Your task to perform on an android device: Show me the alarms in the clock app Image 0: 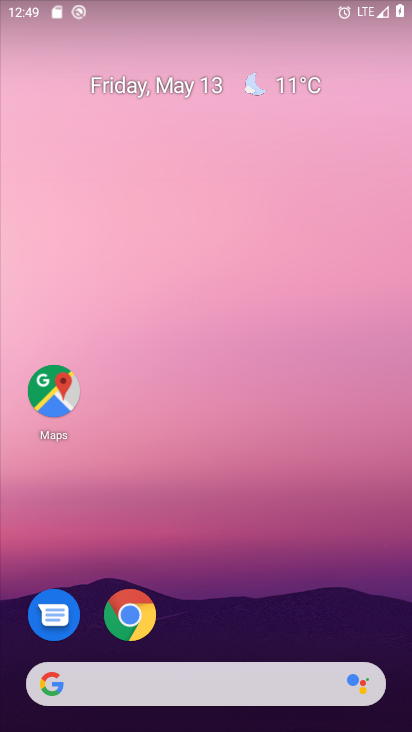
Step 0: drag from (285, 601) to (308, 57)
Your task to perform on an android device: Show me the alarms in the clock app Image 1: 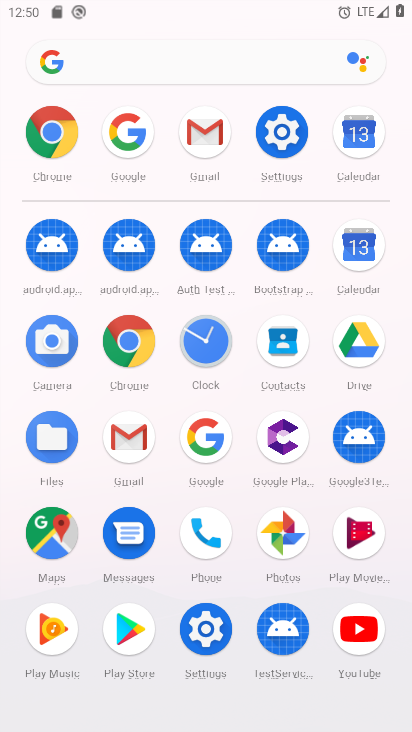
Step 1: click (216, 337)
Your task to perform on an android device: Show me the alarms in the clock app Image 2: 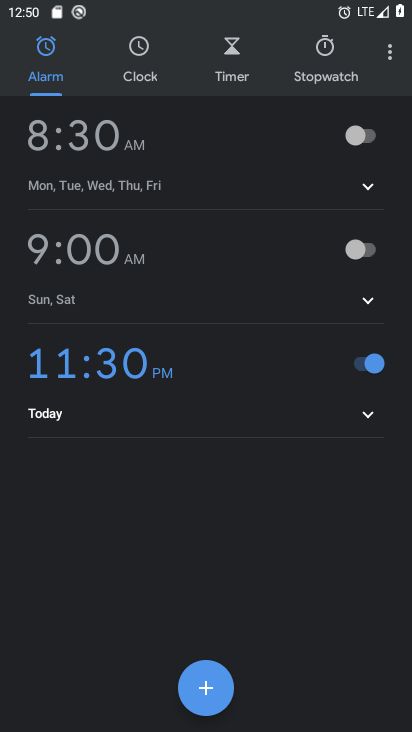
Step 2: task complete